Your task to perform on an android device: Set the phone to "Do not disturb". Image 0: 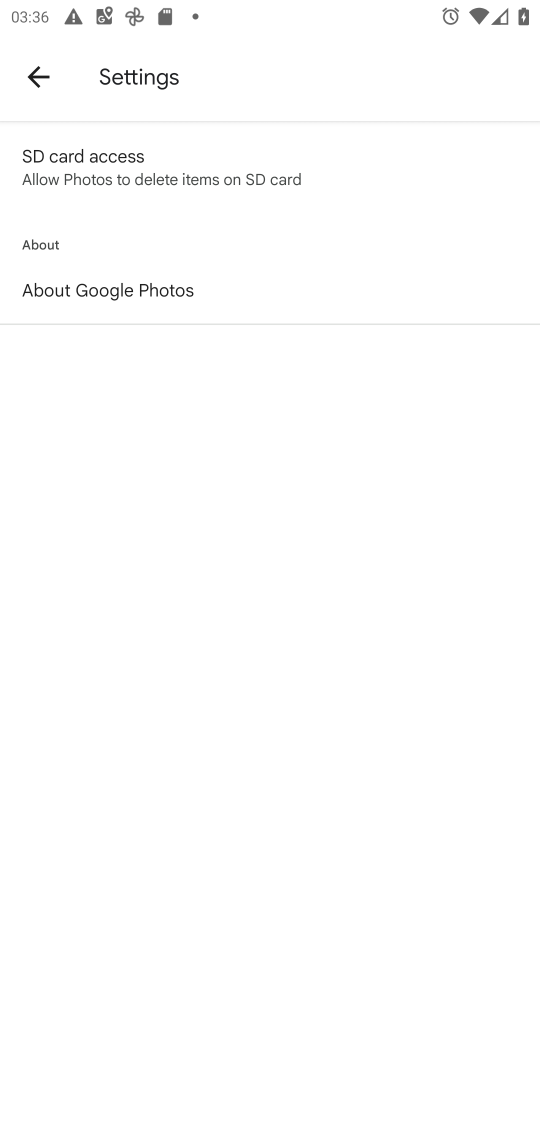
Step 0: press home button
Your task to perform on an android device: Set the phone to "Do not disturb". Image 1: 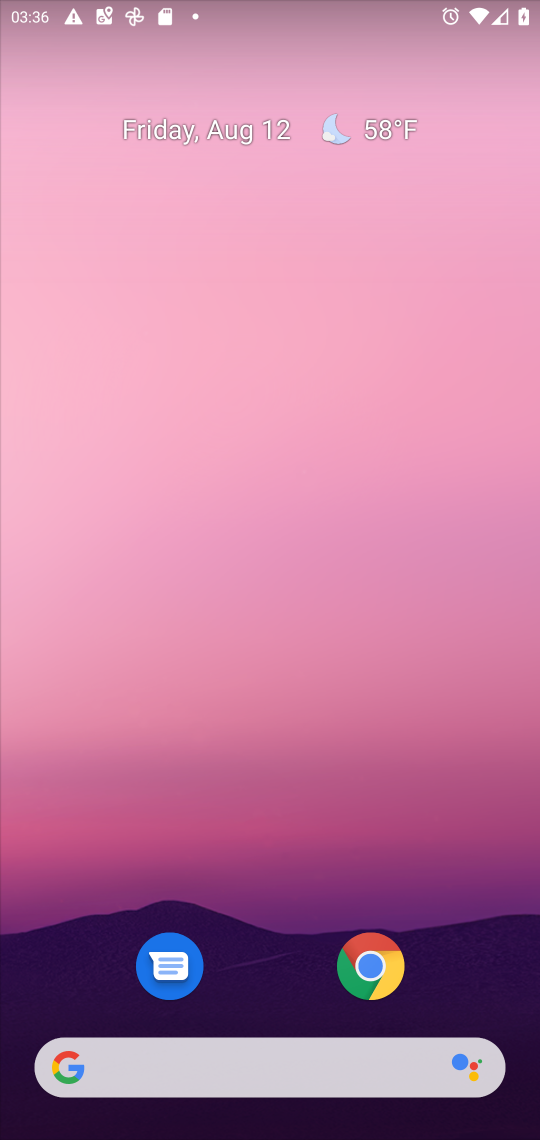
Step 1: drag from (261, 21) to (269, 790)
Your task to perform on an android device: Set the phone to "Do not disturb". Image 2: 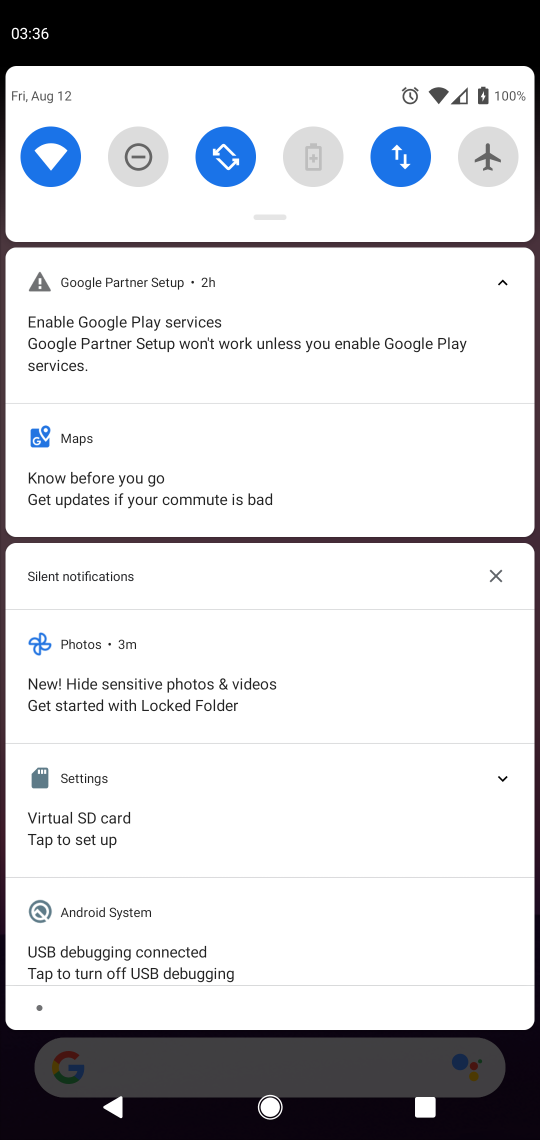
Step 2: click (134, 151)
Your task to perform on an android device: Set the phone to "Do not disturb". Image 3: 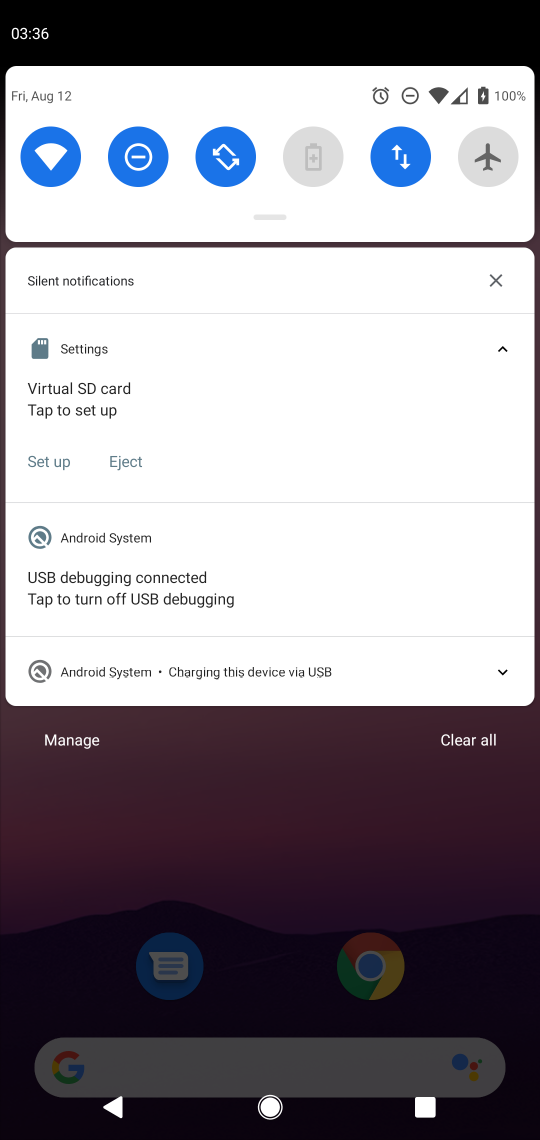
Step 3: task complete